Your task to perform on an android device: Go to notification settings Image 0: 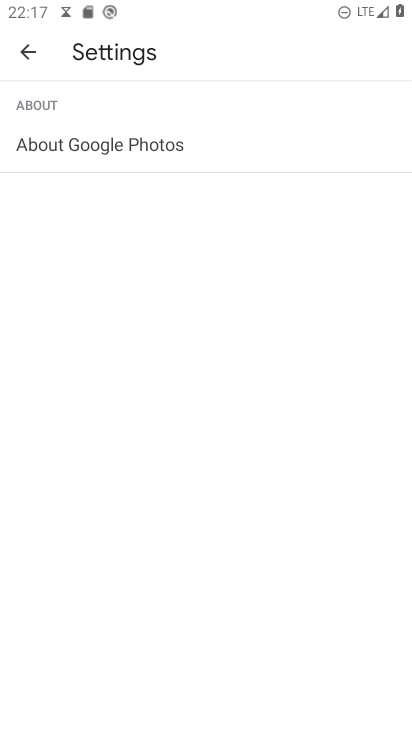
Step 0: press home button
Your task to perform on an android device: Go to notification settings Image 1: 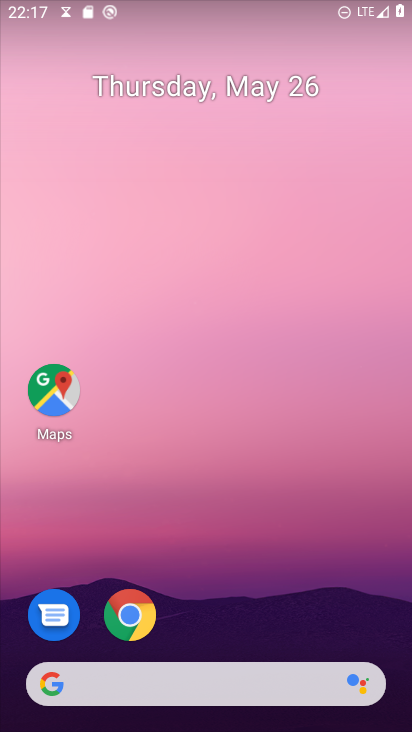
Step 1: drag from (244, 595) to (241, 183)
Your task to perform on an android device: Go to notification settings Image 2: 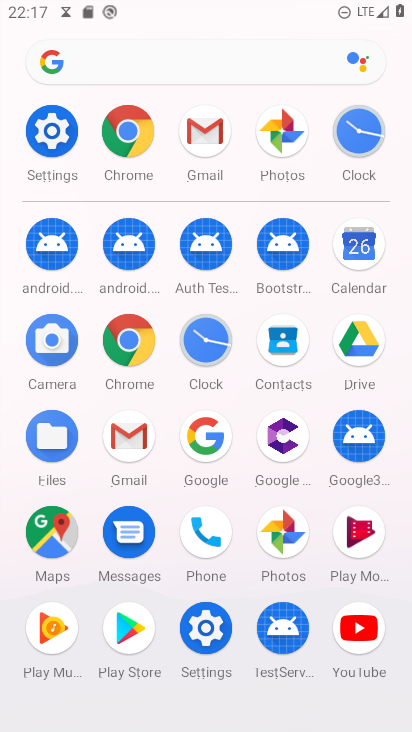
Step 2: click (51, 122)
Your task to perform on an android device: Go to notification settings Image 3: 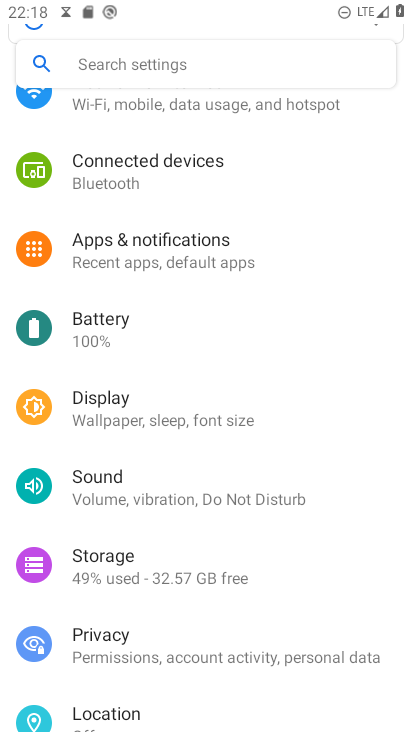
Step 3: click (172, 255)
Your task to perform on an android device: Go to notification settings Image 4: 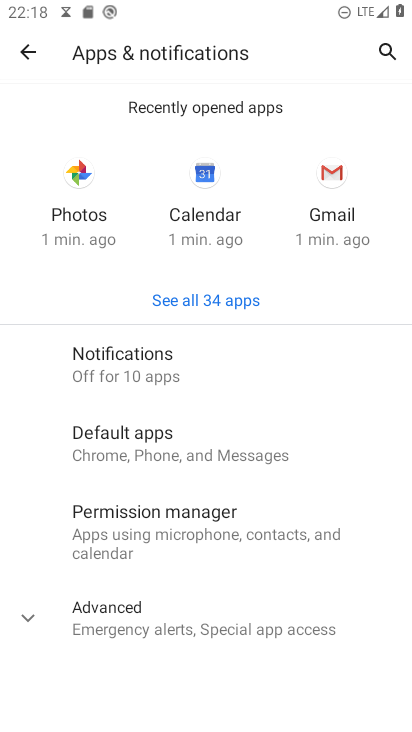
Step 4: task complete